Your task to perform on an android device: Go to Google Image 0: 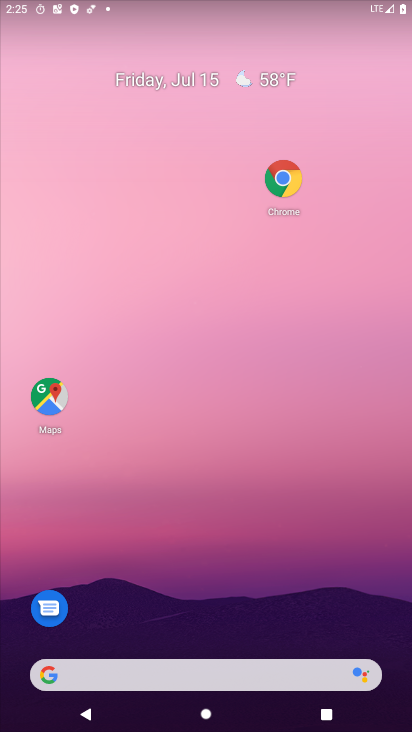
Step 0: drag from (227, 615) to (221, 108)
Your task to perform on an android device: Go to Google Image 1: 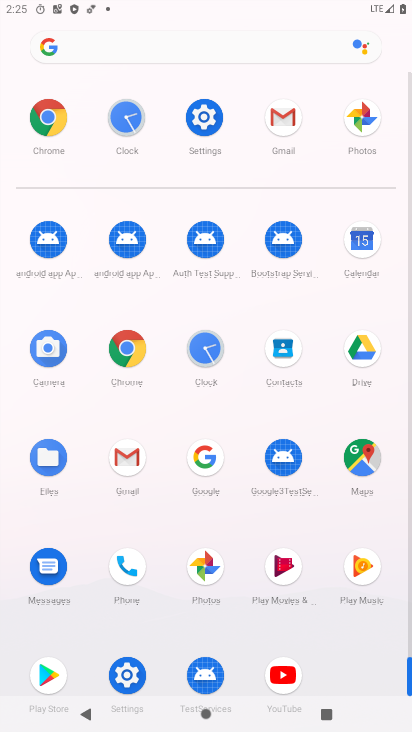
Step 1: click (199, 460)
Your task to perform on an android device: Go to Google Image 2: 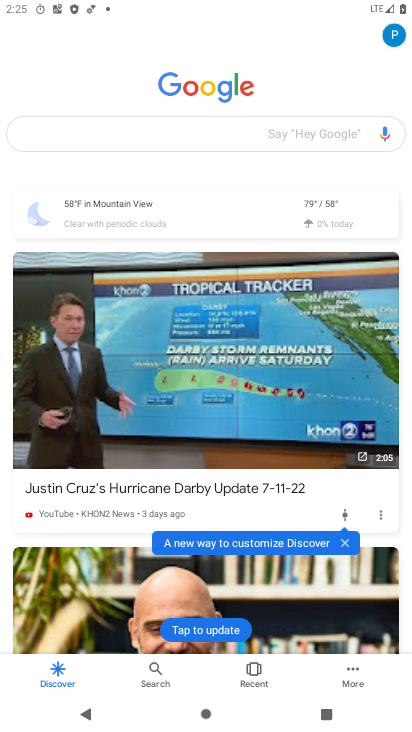
Step 2: task complete